Your task to perform on an android device: Go to Yahoo.com Image 0: 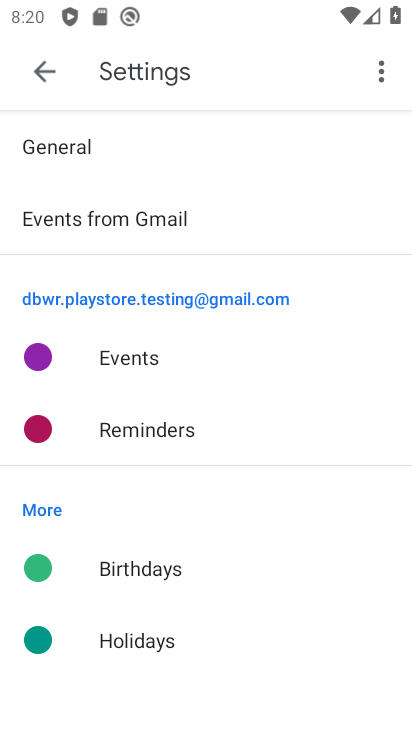
Step 0: press home button
Your task to perform on an android device: Go to Yahoo.com Image 1: 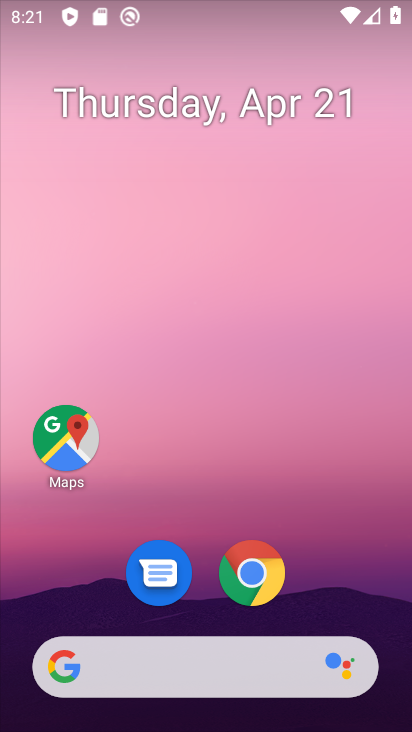
Step 1: drag from (264, 541) to (260, 584)
Your task to perform on an android device: Go to Yahoo.com Image 2: 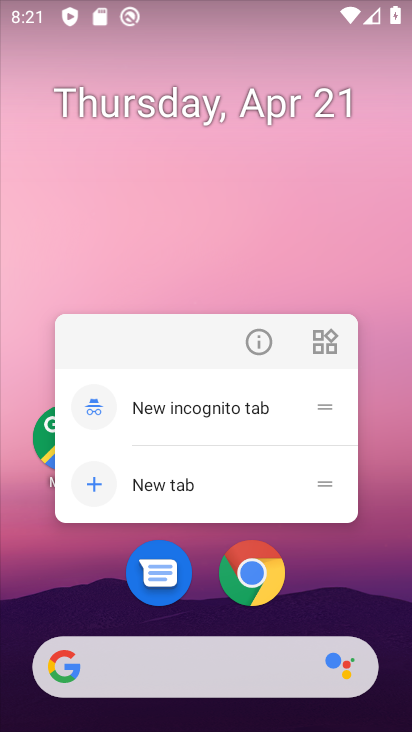
Step 2: click (258, 562)
Your task to perform on an android device: Go to Yahoo.com Image 3: 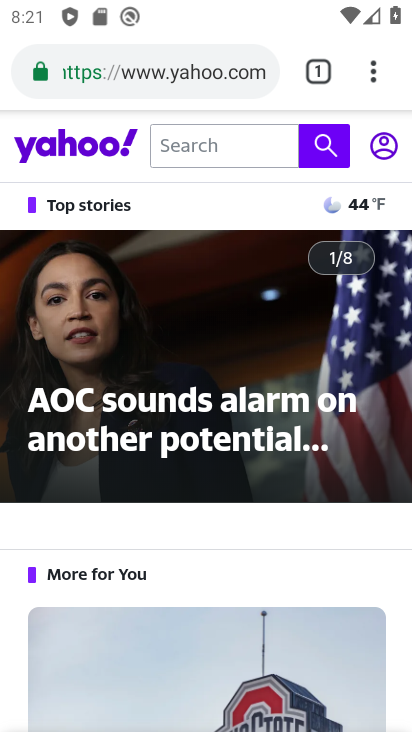
Step 3: task complete